Your task to perform on an android device: See recent photos Image 0: 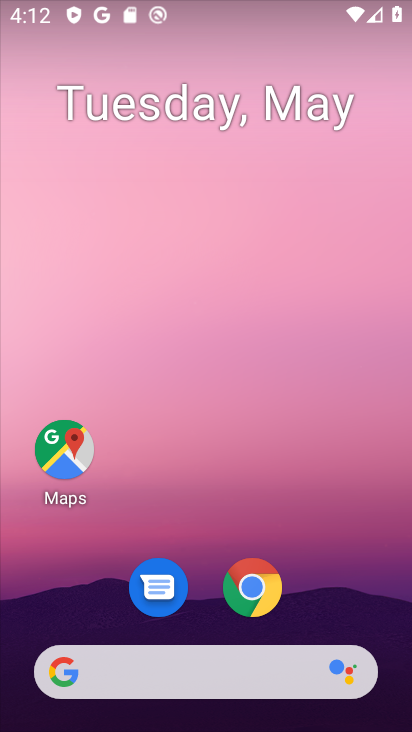
Step 0: drag from (381, 627) to (392, 158)
Your task to perform on an android device: See recent photos Image 1: 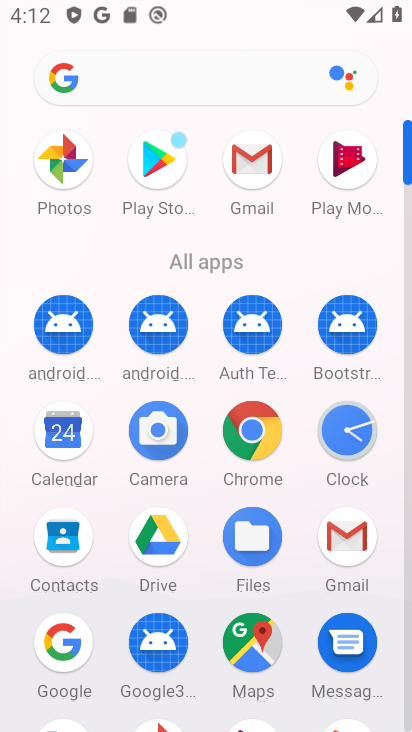
Step 1: drag from (391, 602) to (400, 347)
Your task to perform on an android device: See recent photos Image 2: 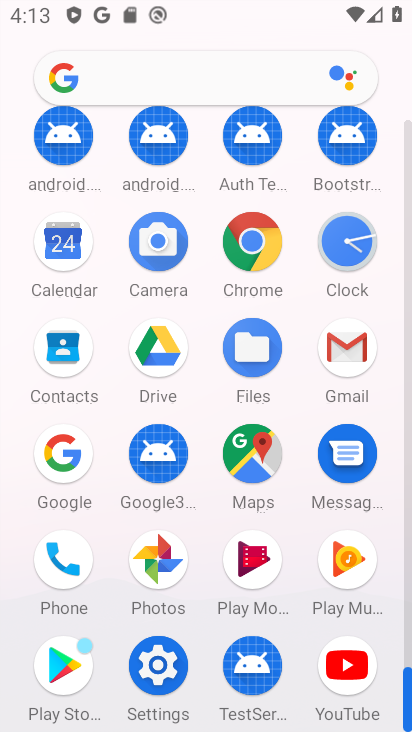
Step 2: click (150, 571)
Your task to perform on an android device: See recent photos Image 3: 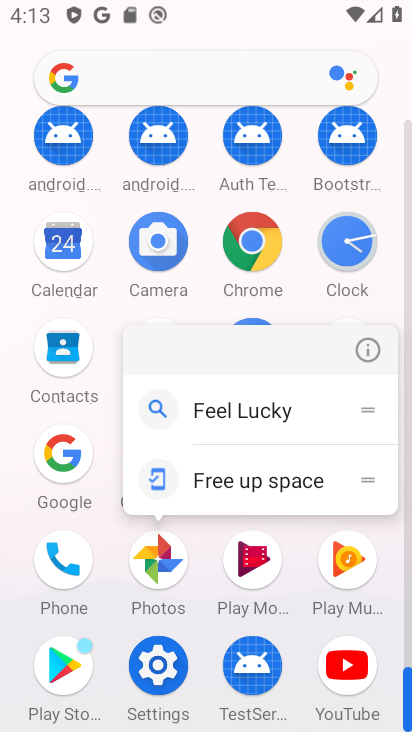
Step 3: click (150, 571)
Your task to perform on an android device: See recent photos Image 4: 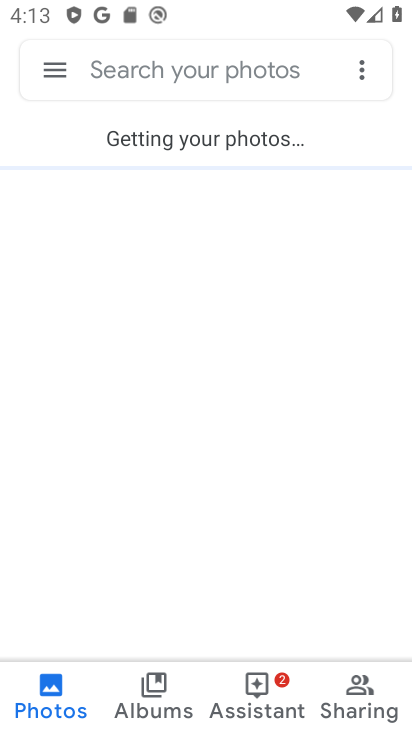
Step 4: task complete